Your task to perform on an android device: turn smart compose on in the gmail app Image 0: 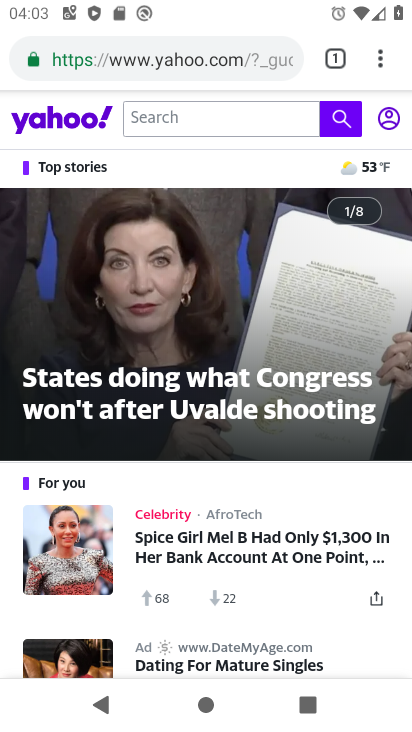
Step 0: press home button
Your task to perform on an android device: turn smart compose on in the gmail app Image 1: 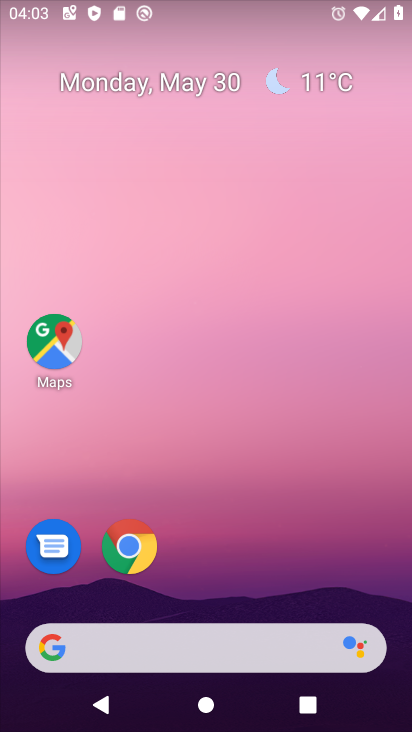
Step 1: drag from (209, 592) to (263, 48)
Your task to perform on an android device: turn smart compose on in the gmail app Image 2: 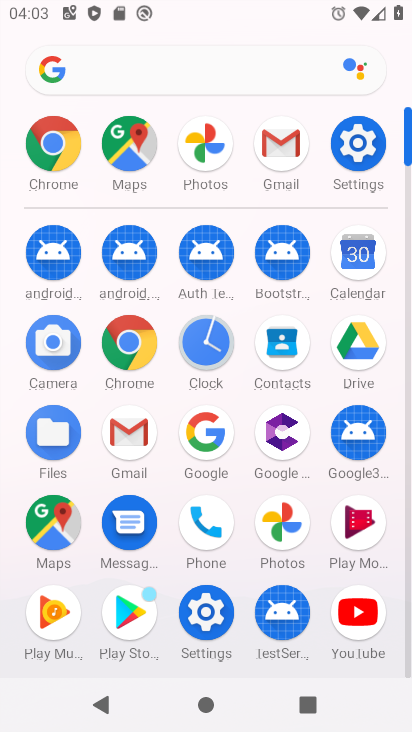
Step 2: click (117, 426)
Your task to perform on an android device: turn smart compose on in the gmail app Image 3: 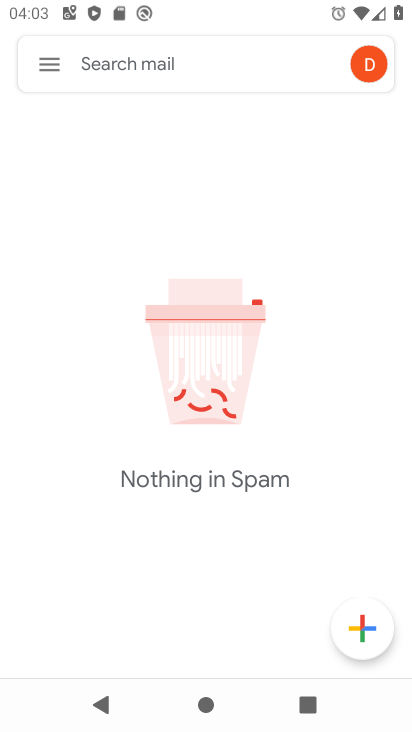
Step 3: click (44, 63)
Your task to perform on an android device: turn smart compose on in the gmail app Image 4: 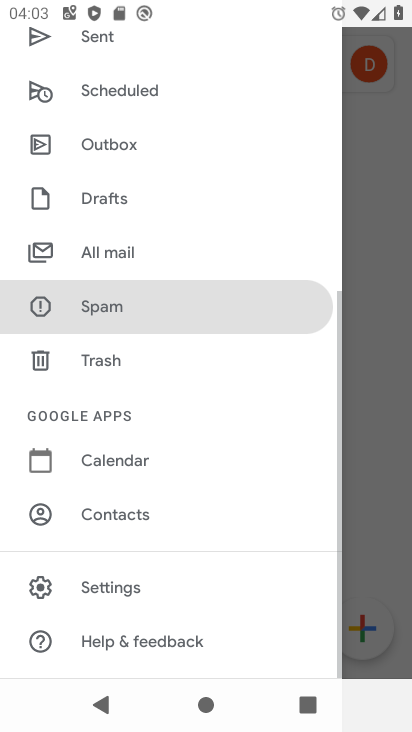
Step 4: click (150, 584)
Your task to perform on an android device: turn smart compose on in the gmail app Image 5: 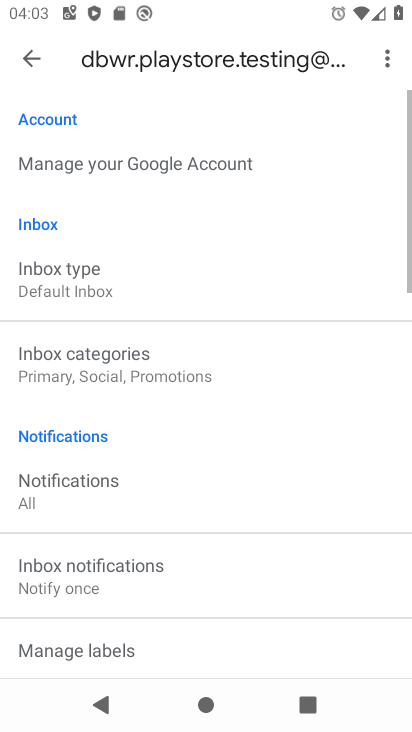
Step 5: task complete